Your task to perform on an android device: delete browsing data in the chrome app Image 0: 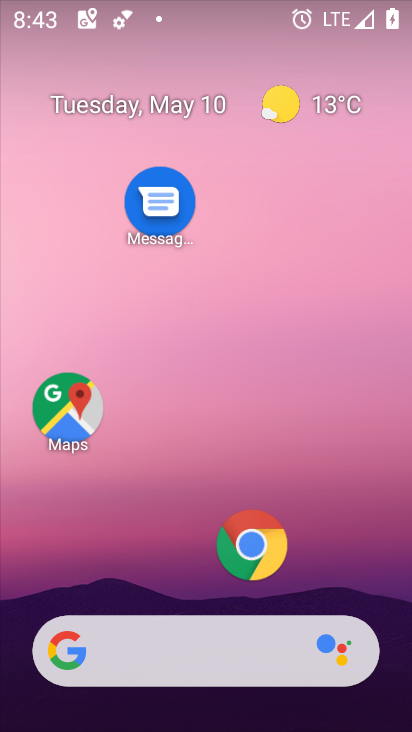
Step 0: click (249, 541)
Your task to perform on an android device: delete browsing data in the chrome app Image 1: 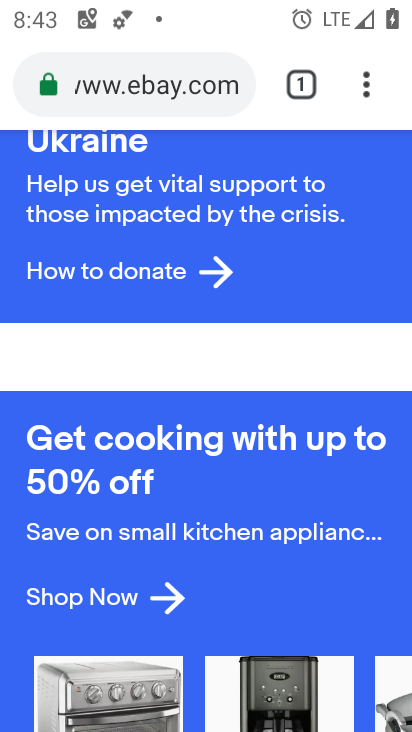
Step 1: click (367, 81)
Your task to perform on an android device: delete browsing data in the chrome app Image 2: 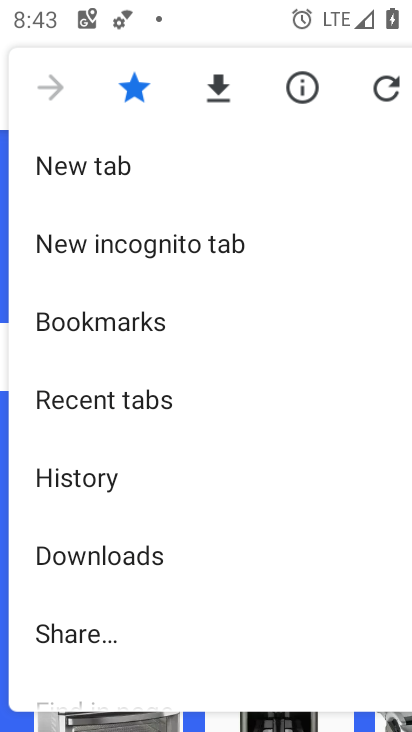
Step 2: click (128, 475)
Your task to perform on an android device: delete browsing data in the chrome app Image 3: 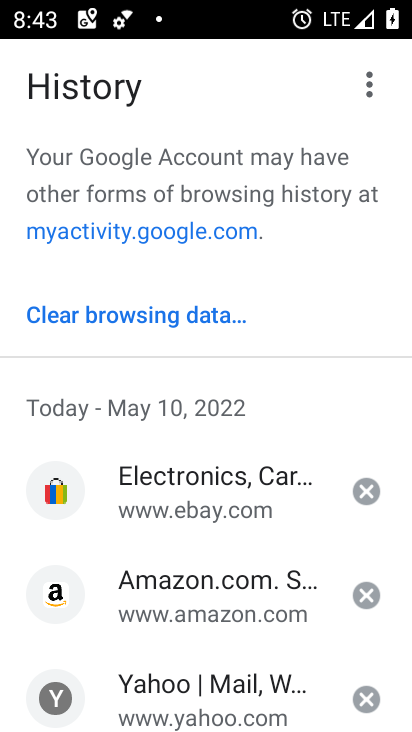
Step 3: click (115, 316)
Your task to perform on an android device: delete browsing data in the chrome app Image 4: 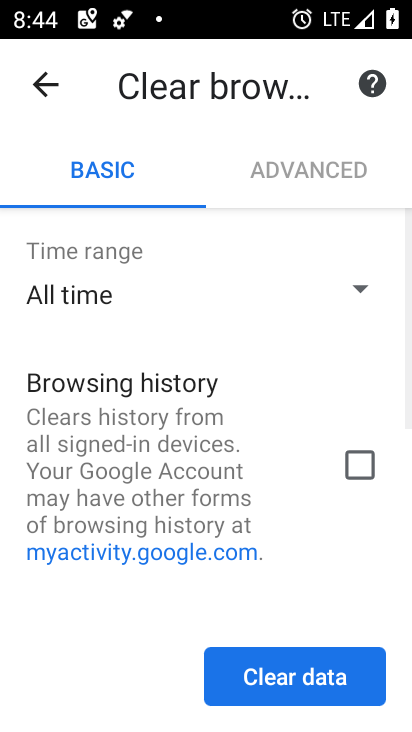
Step 4: click (354, 465)
Your task to perform on an android device: delete browsing data in the chrome app Image 5: 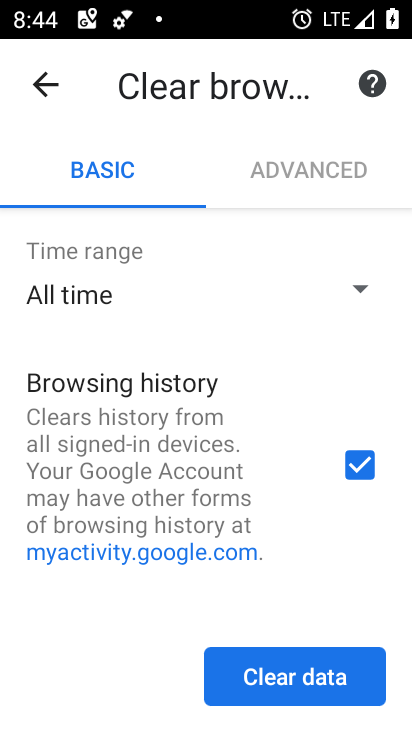
Step 5: drag from (207, 524) to (224, 177)
Your task to perform on an android device: delete browsing data in the chrome app Image 6: 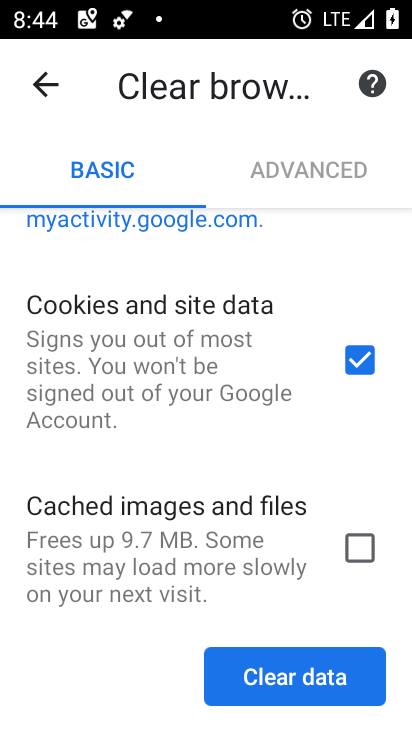
Step 6: click (352, 548)
Your task to perform on an android device: delete browsing data in the chrome app Image 7: 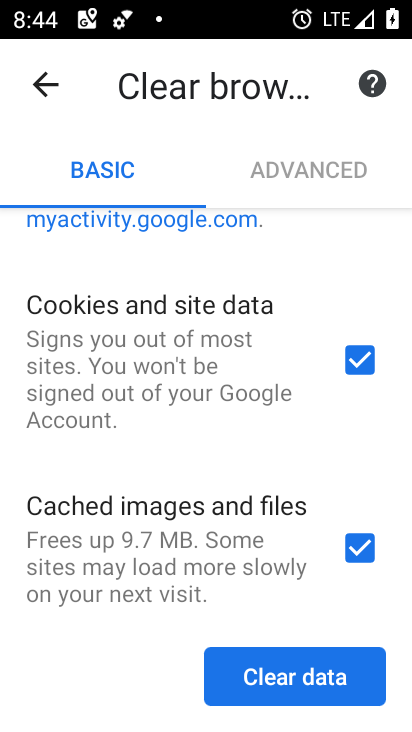
Step 7: click (304, 673)
Your task to perform on an android device: delete browsing data in the chrome app Image 8: 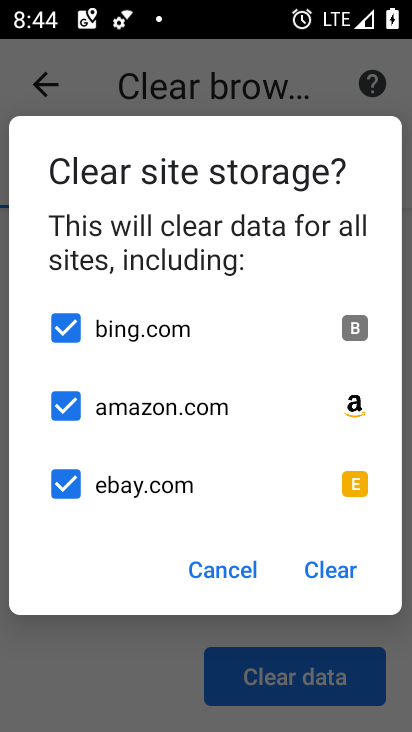
Step 8: click (333, 573)
Your task to perform on an android device: delete browsing data in the chrome app Image 9: 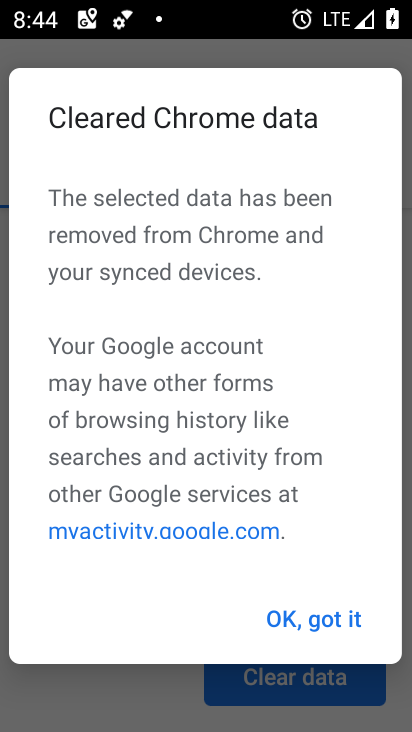
Step 9: click (312, 625)
Your task to perform on an android device: delete browsing data in the chrome app Image 10: 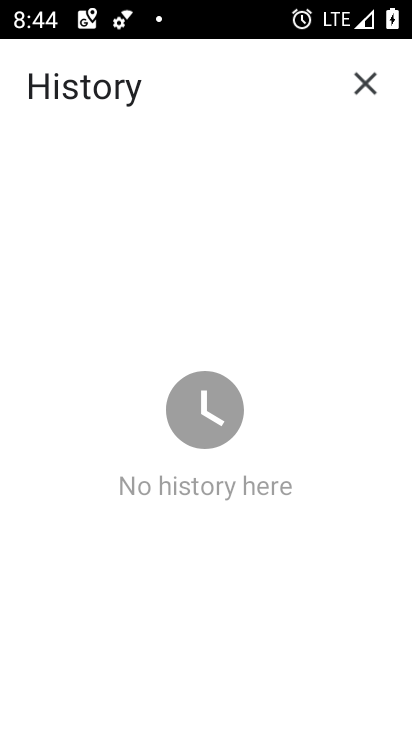
Step 10: task complete